Your task to perform on an android device: Go to calendar. Show me events next week Image 0: 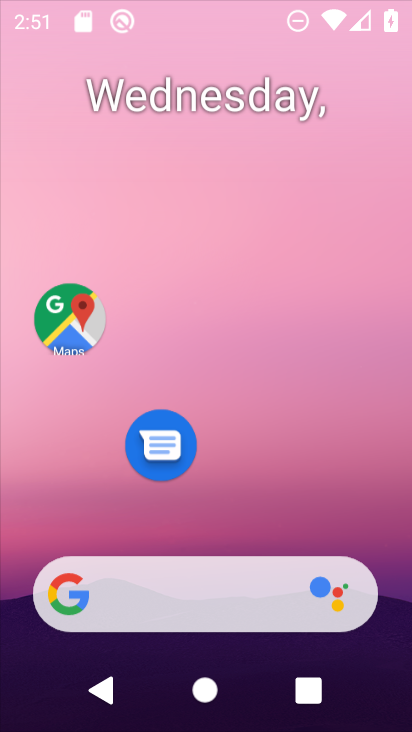
Step 0: click (296, 127)
Your task to perform on an android device: Go to calendar. Show me events next week Image 1: 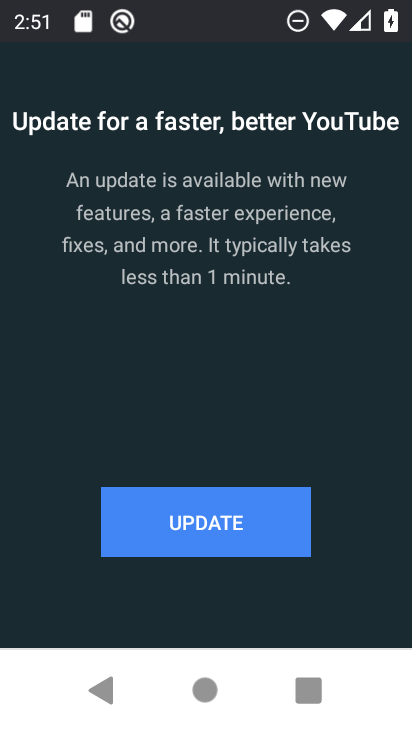
Step 1: press back button
Your task to perform on an android device: Go to calendar. Show me events next week Image 2: 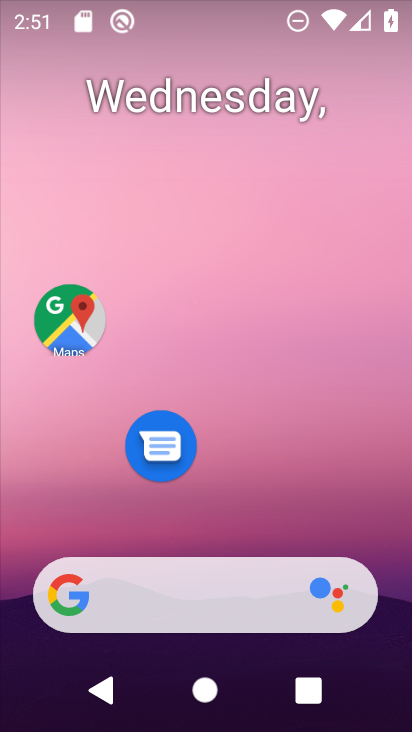
Step 2: drag from (237, 494) to (273, 89)
Your task to perform on an android device: Go to calendar. Show me events next week Image 3: 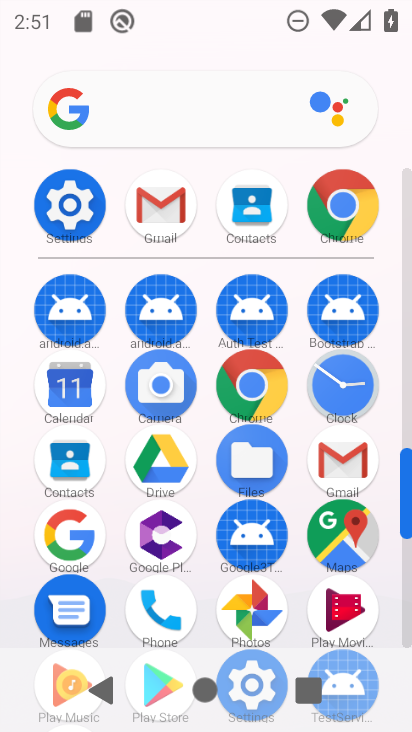
Step 3: click (57, 387)
Your task to perform on an android device: Go to calendar. Show me events next week Image 4: 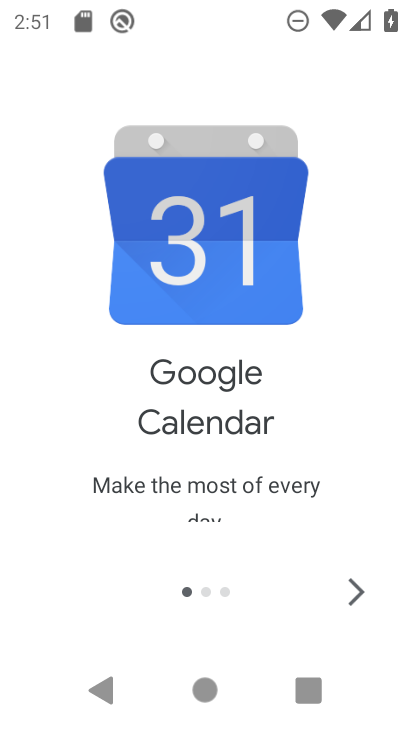
Step 4: click (359, 590)
Your task to perform on an android device: Go to calendar. Show me events next week Image 5: 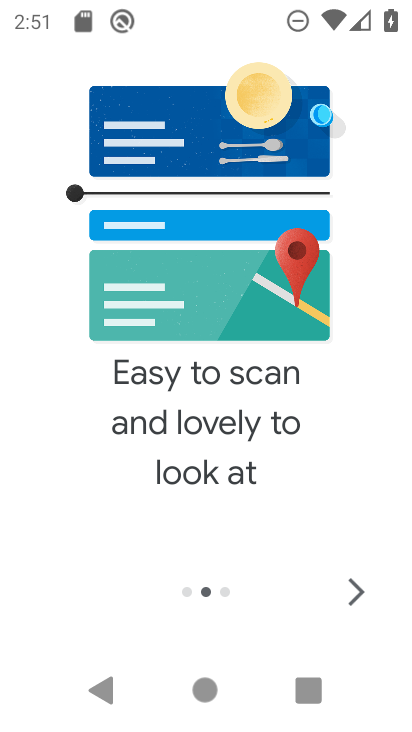
Step 5: click (359, 590)
Your task to perform on an android device: Go to calendar. Show me events next week Image 6: 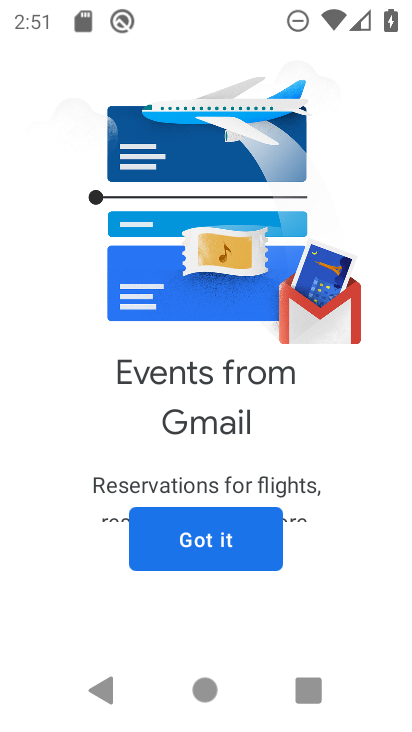
Step 6: click (359, 590)
Your task to perform on an android device: Go to calendar. Show me events next week Image 7: 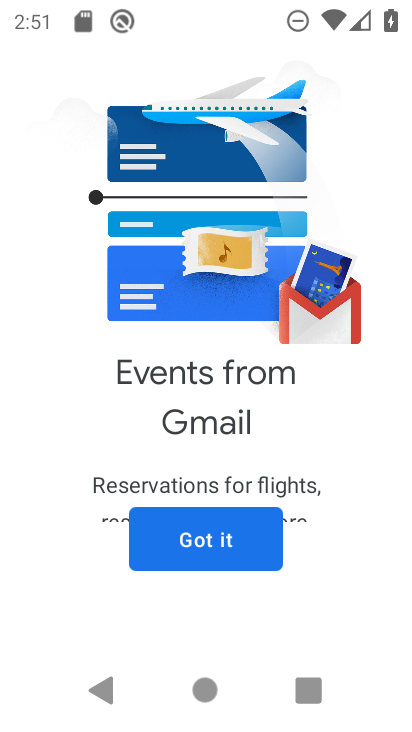
Step 7: click (170, 529)
Your task to perform on an android device: Go to calendar. Show me events next week Image 8: 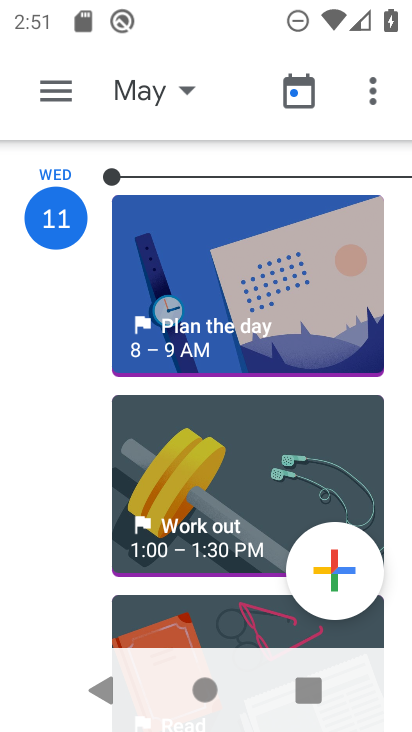
Step 8: click (48, 72)
Your task to perform on an android device: Go to calendar. Show me events next week Image 9: 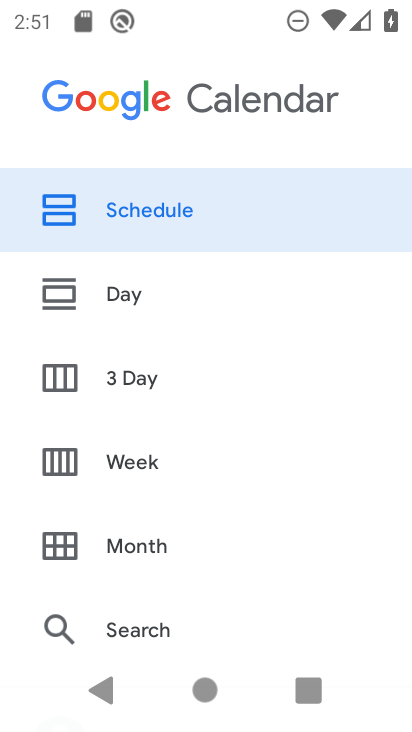
Step 9: click (161, 442)
Your task to perform on an android device: Go to calendar. Show me events next week Image 10: 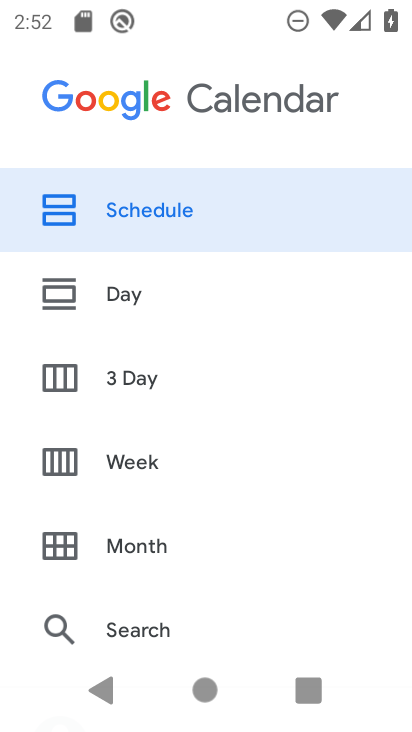
Step 10: click (149, 448)
Your task to perform on an android device: Go to calendar. Show me events next week Image 11: 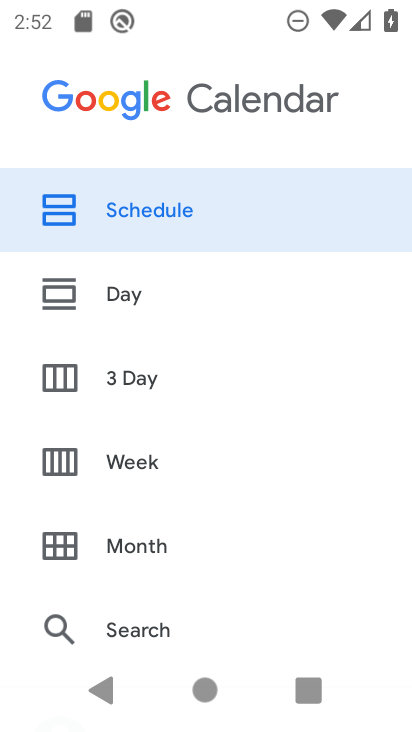
Step 11: task complete